Your task to perform on an android device: turn off wifi Image 0: 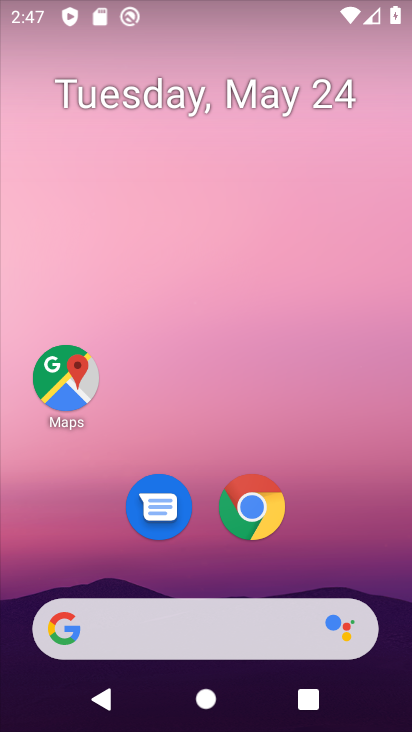
Step 0: drag from (163, 16) to (216, 452)
Your task to perform on an android device: turn off wifi Image 1: 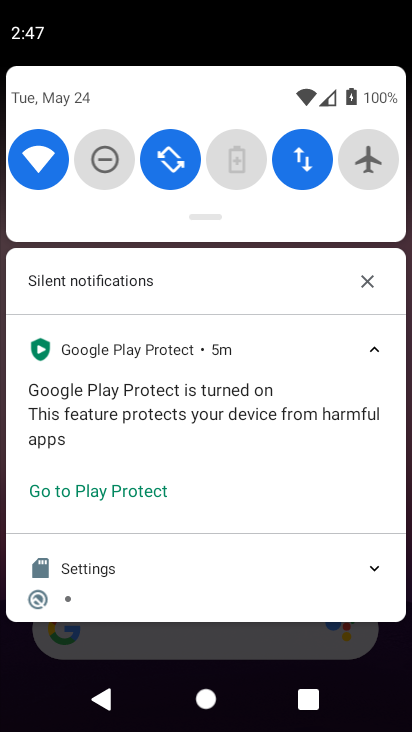
Step 1: click (29, 169)
Your task to perform on an android device: turn off wifi Image 2: 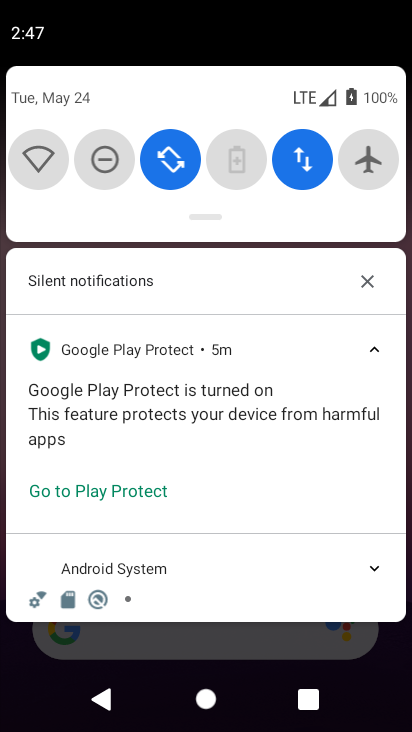
Step 2: task complete